Your task to perform on an android device: turn off smart reply in the gmail app Image 0: 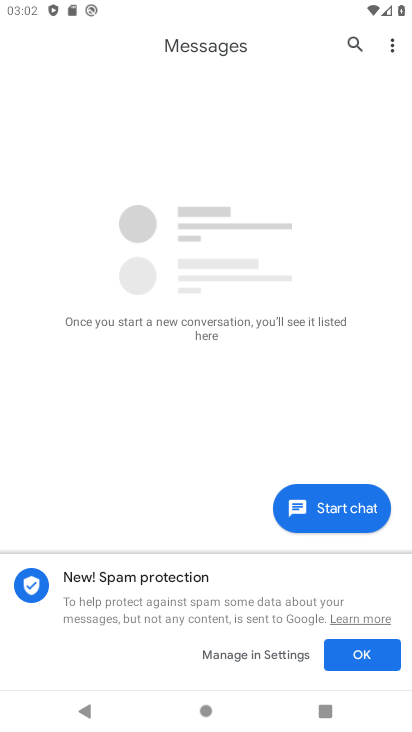
Step 0: press home button
Your task to perform on an android device: turn off smart reply in the gmail app Image 1: 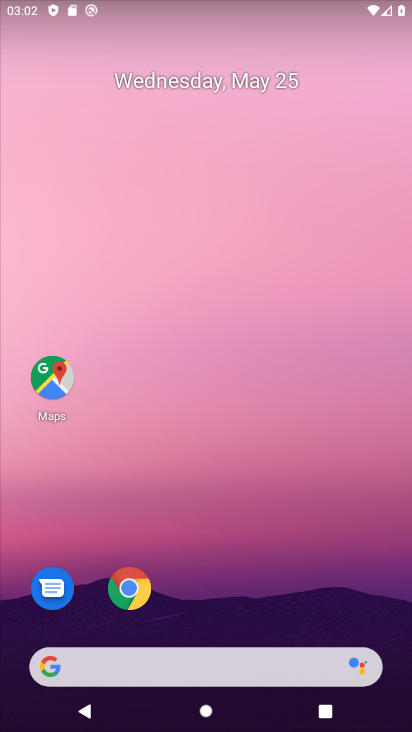
Step 1: drag from (279, 628) to (366, 75)
Your task to perform on an android device: turn off smart reply in the gmail app Image 2: 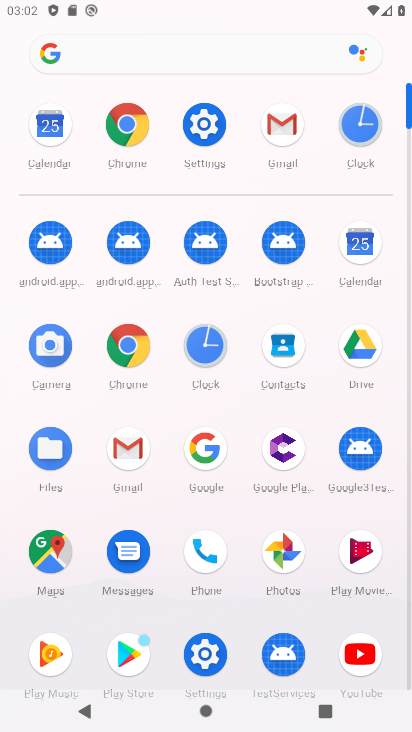
Step 2: click (295, 122)
Your task to perform on an android device: turn off smart reply in the gmail app Image 3: 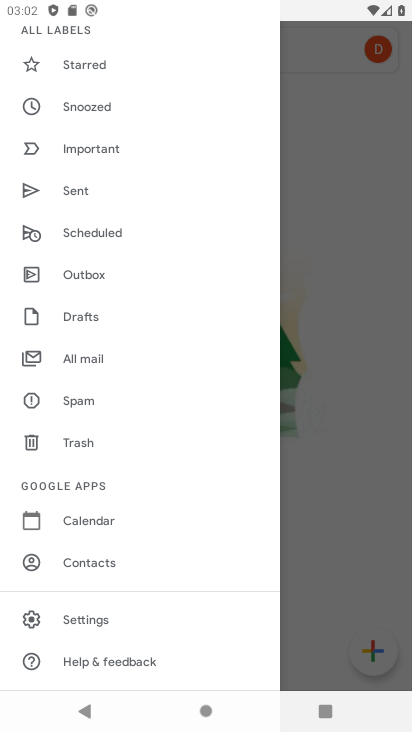
Step 3: click (65, 620)
Your task to perform on an android device: turn off smart reply in the gmail app Image 4: 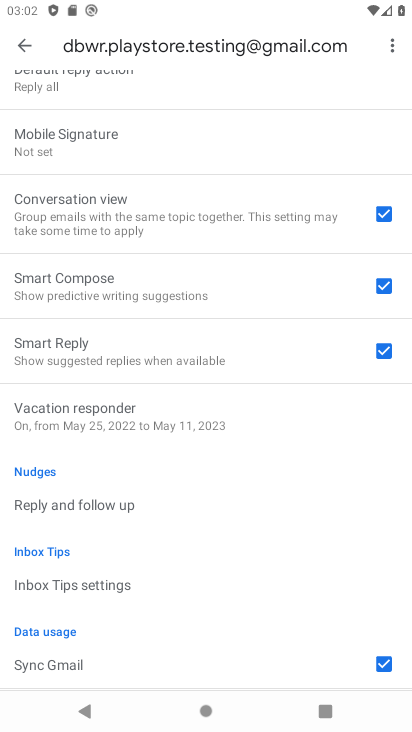
Step 4: click (127, 345)
Your task to perform on an android device: turn off smart reply in the gmail app Image 5: 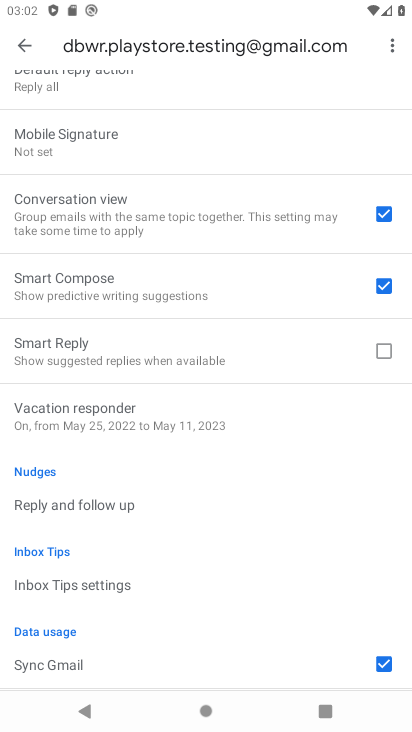
Step 5: task complete